Your task to perform on an android device: delete the emails in spam in the gmail app Image 0: 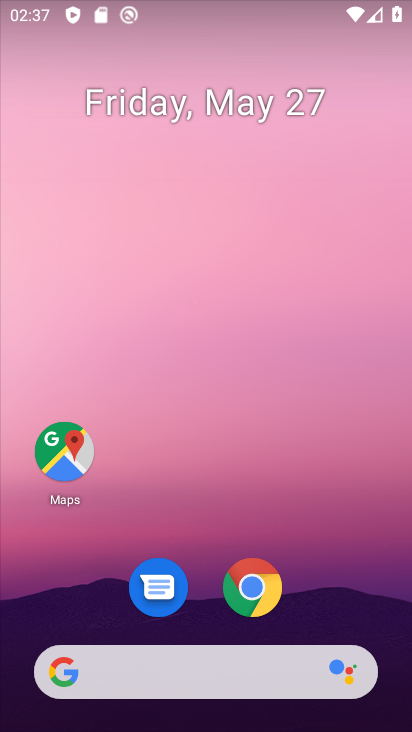
Step 0: press home button
Your task to perform on an android device: delete the emails in spam in the gmail app Image 1: 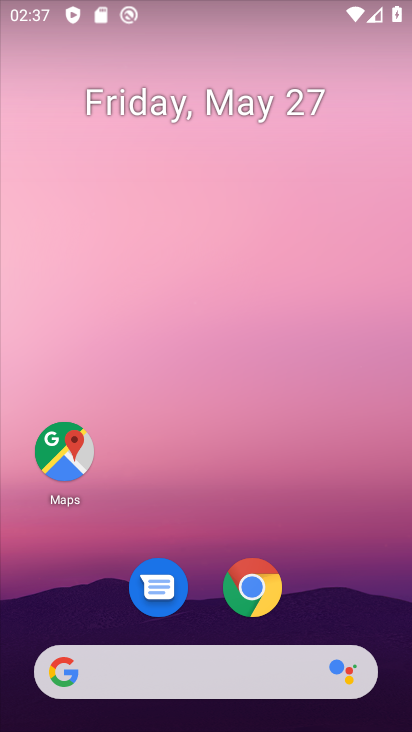
Step 1: drag from (350, 617) to (326, 55)
Your task to perform on an android device: delete the emails in spam in the gmail app Image 2: 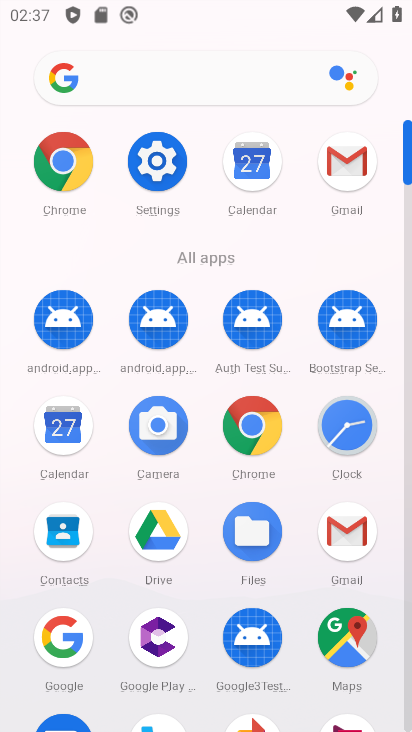
Step 2: click (360, 173)
Your task to perform on an android device: delete the emails in spam in the gmail app Image 3: 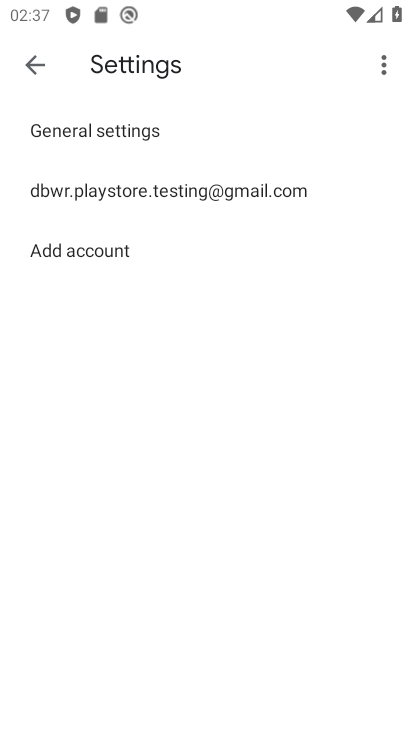
Step 3: click (34, 73)
Your task to perform on an android device: delete the emails in spam in the gmail app Image 4: 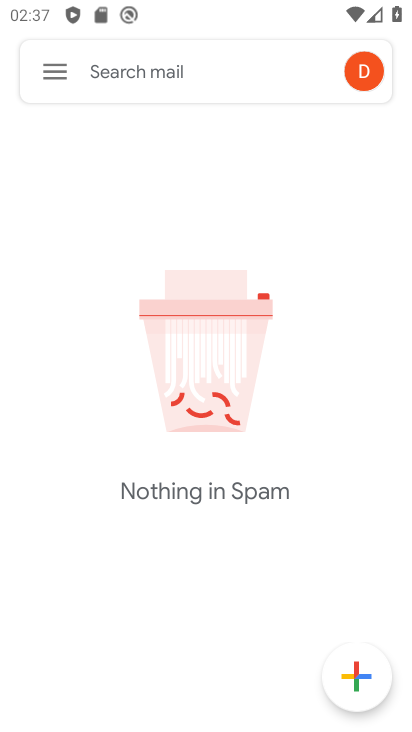
Step 4: click (37, 72)
Your task to perform on an android device: delete the emails in spam in the gmail app Image 5: 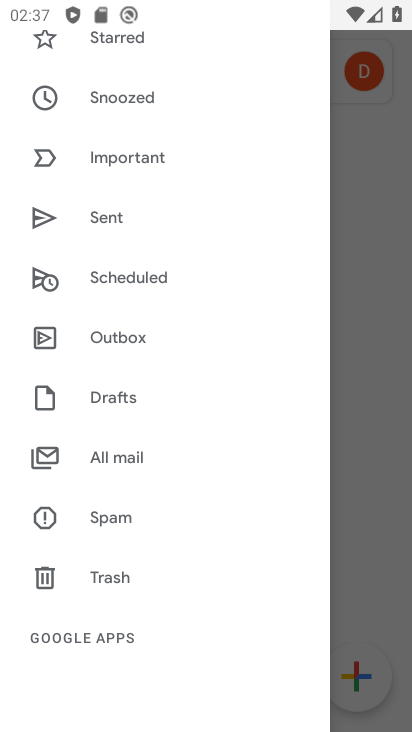
Step 5: click (131, 510)
Your task to perform on an android device: delete the emails in spam in the gmail app Image 6: 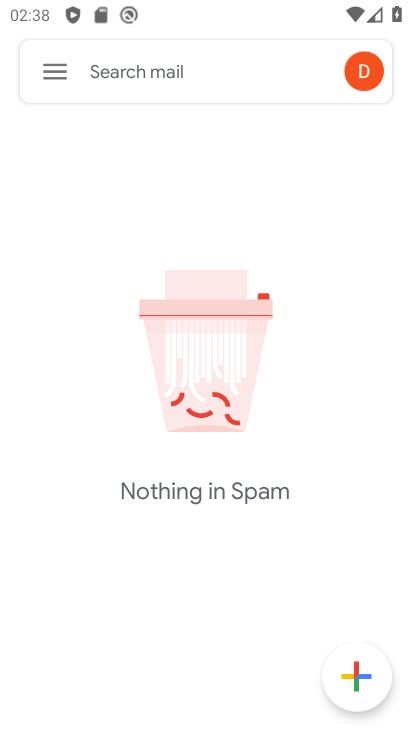
Step 6: task complete